Your task to perform on an android device: find snoozed emails in the gmail app Image 0: 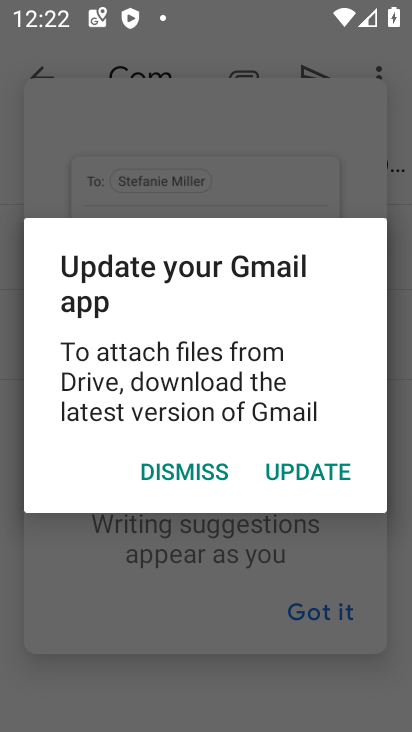
Step 0: press home button
Your task to perform on an android device: find snoozed emails in the gmail app Image 1: 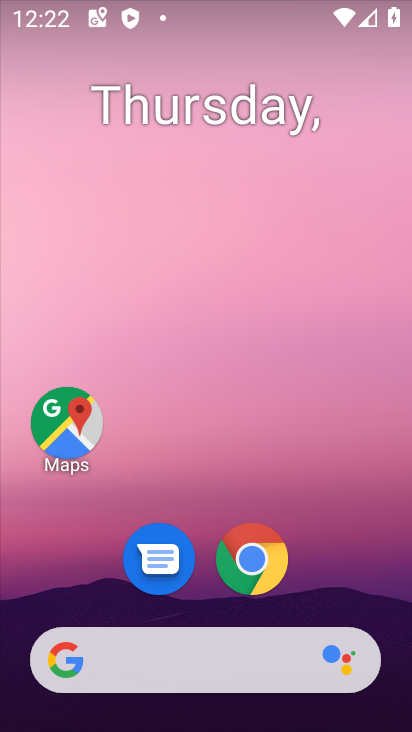
Step 1: drag from (329, 534) to (327, 110)
Your task to perform on an android device: find snoozed emails in the gmail app Image 2: 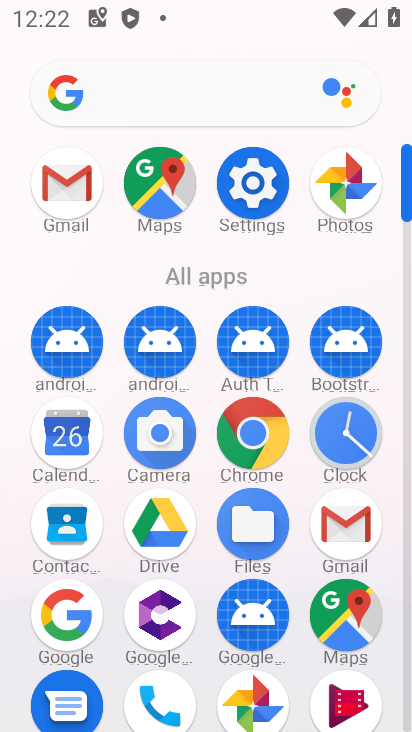
Step 2: click (327, 503)
Your task to perform on an android device: find snoozed emails in the gmail app Image 3: 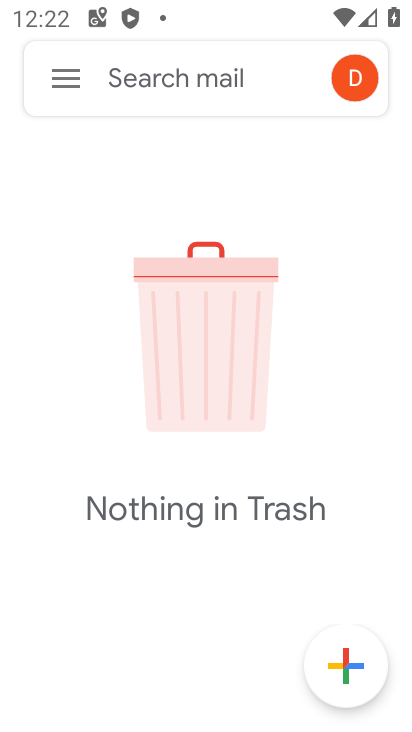
Step 3: click (71, 77)
Your task to perform on an android device: find snoozed emails in the gmail app Image 4: 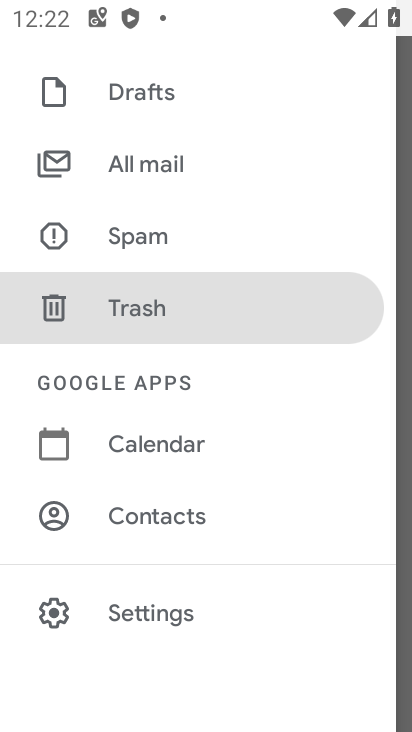
Step 4: drag from (177, 173) to (197, 545)
Your task to perform on an android device: find snoozed emails in the gmail app Image 5: 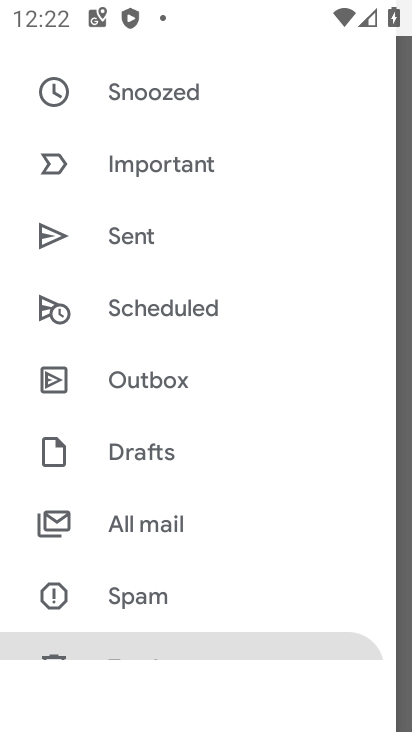
Step 5: click (182, 97)
Your task to perform on an android device: find snoozed emails in the gmail app Image 6: 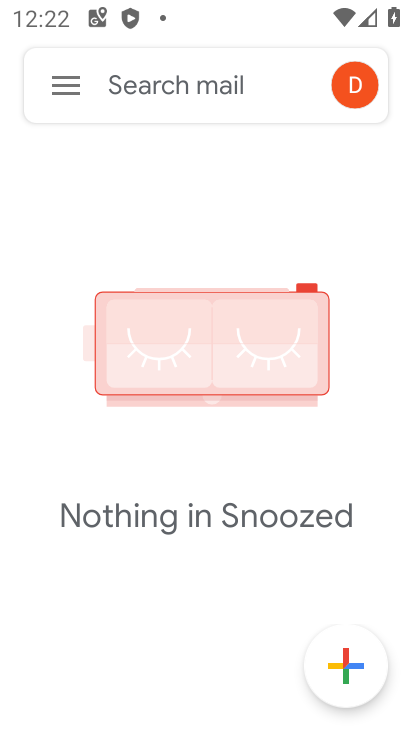
Step 6: task complete